Your task to perform on an android device: toggle pop-ups in chrome Image 0: 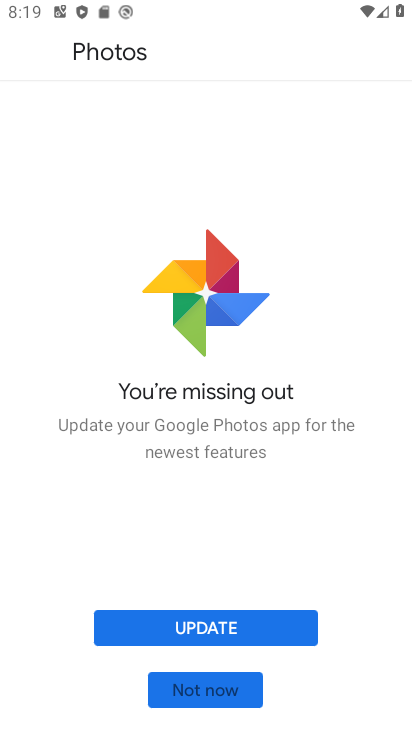
Step 0: press home button
Your task to perform on an android device: toggle pop-ups in chrome Image 1: 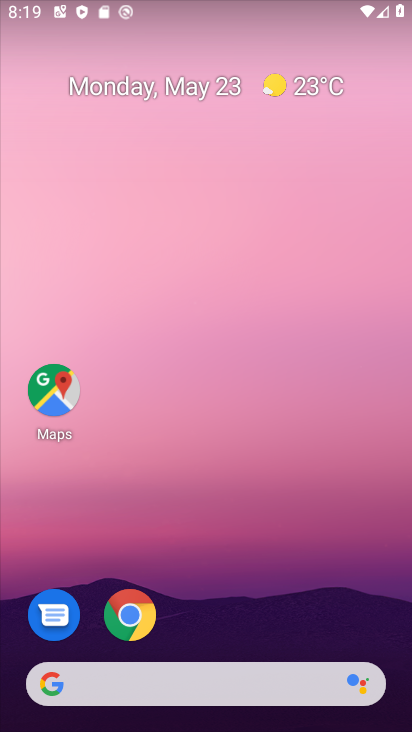
Step 1: click (130, 616)
Your task to perform on an android device: toggle pop-ups in chrome Image 2: 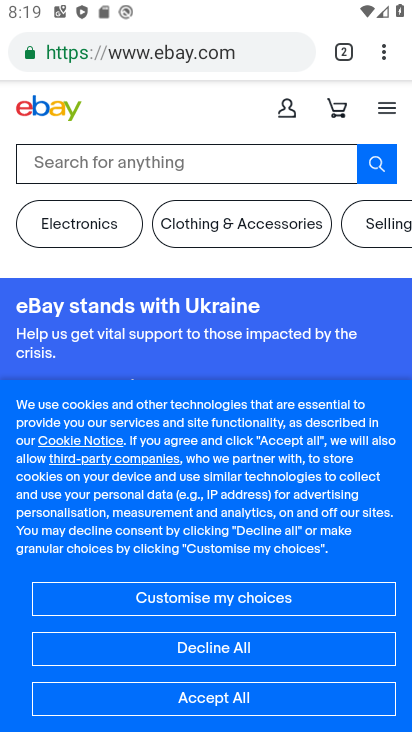
Step 2: click (385, 50)
Your task to perform on an android device: toggle pop-ups in chrome Image 3: 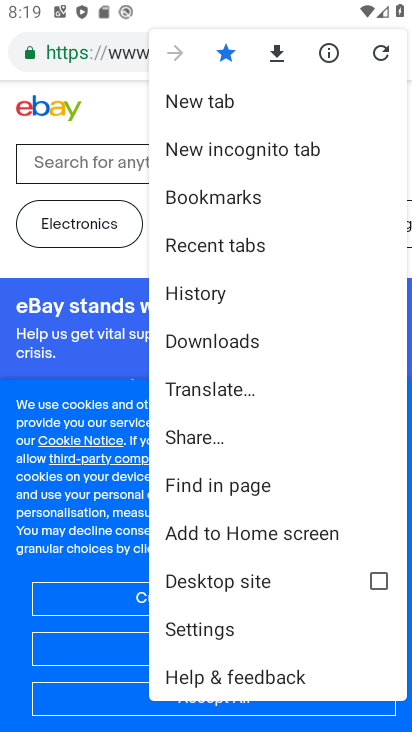
Step 3: click (222, 632)
Your task to perform on an android device: toggle pop-ups in chrome Image 4: 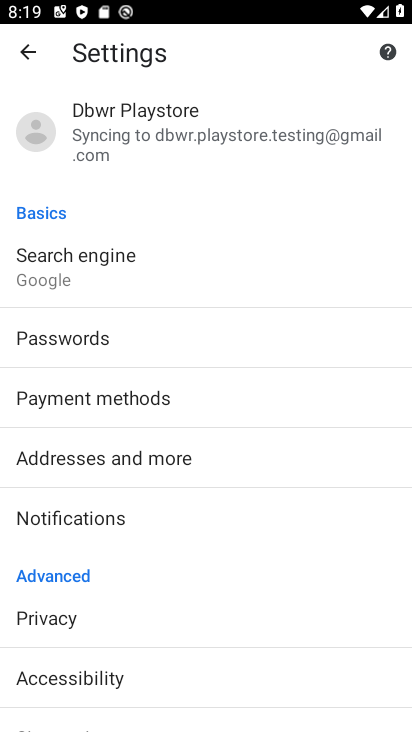
Step 4: drag from (140, 540) to (151, 445)
Your task to perform on an android device: toggle pop-ups in chrome Image 5: 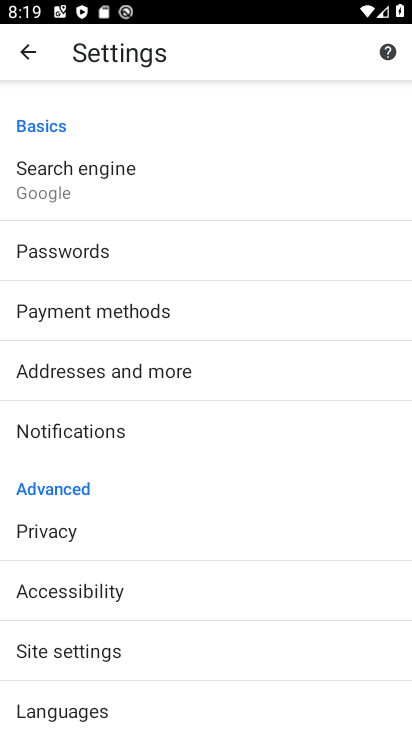
Step 5: drag from (136, 512) to (145, 419)
Your task to perform on an android device: toggle pop-ups in chrome Image 6: 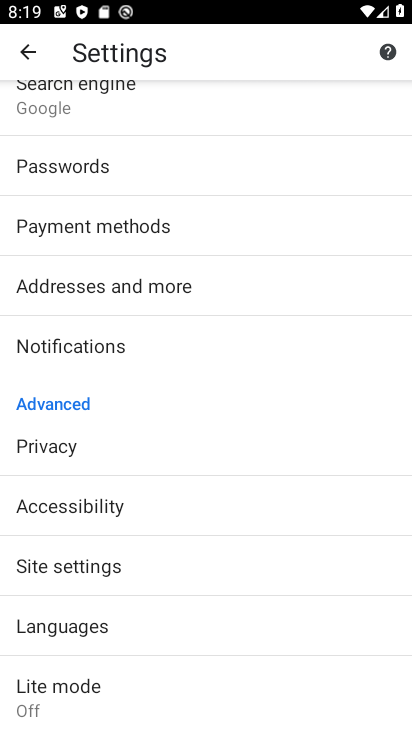
Step 6: drag from (151, 527) to (149, 449)
Your task to perform on an android device: toggle pop-ups in chrome Image 7: 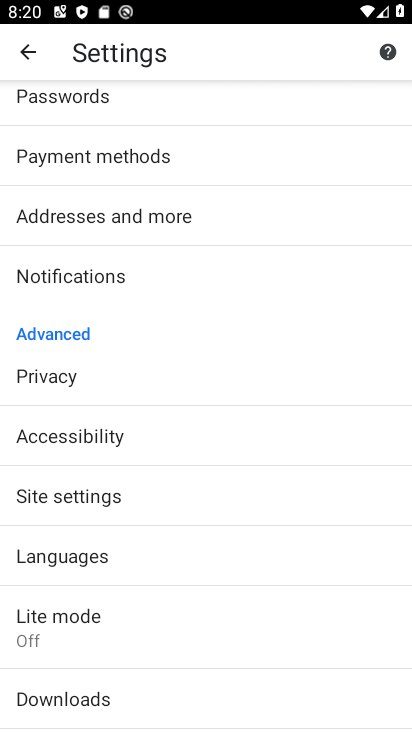
Step 7: drag from (126, 522) to (135, 447)
Your task to perform on an android device: toggle pop-ups in chrome Image 8: 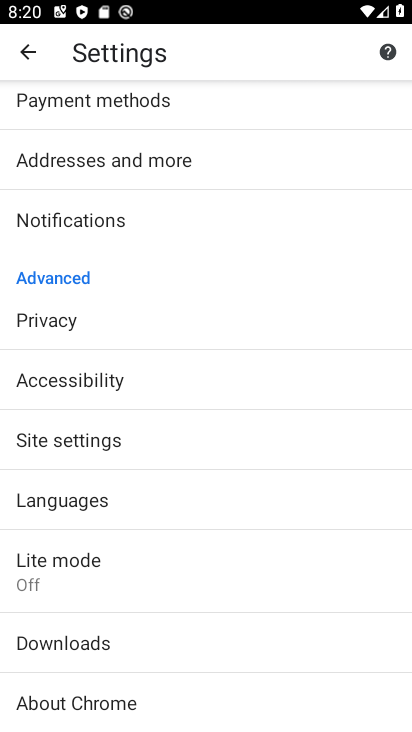
Step 8: click (110, 446)
Your task to perform on an android device: toggle pop-ups in chrome Image 9: 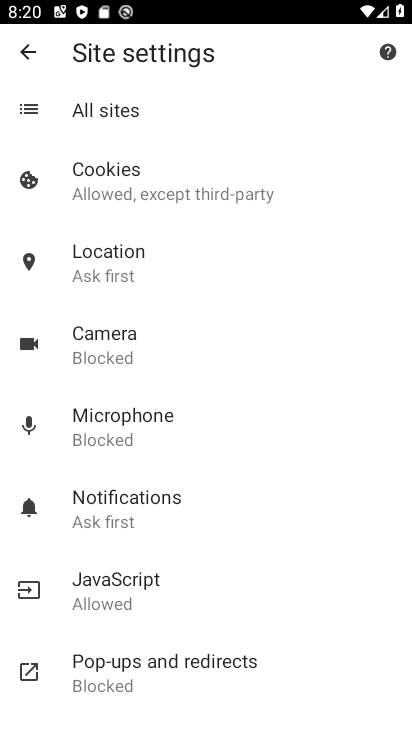
Step 9: click (109, 661)
Your task to perform on an android device: toggle pop-ups in chrome Image 10: 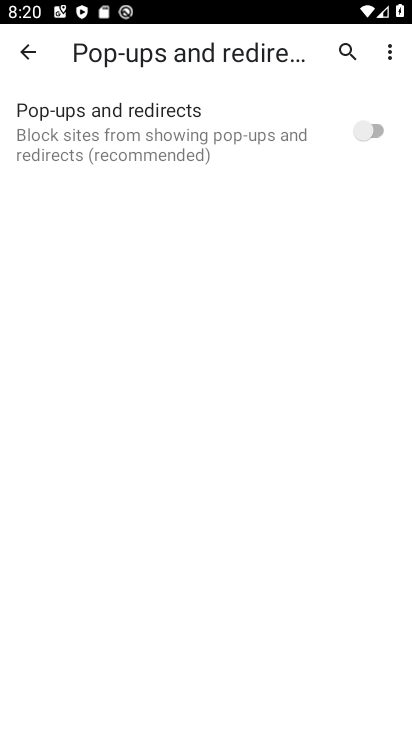
Step 10: click (369, 129)
Your task to perform on an android device: toggle pop-ups in chrome Image 11: 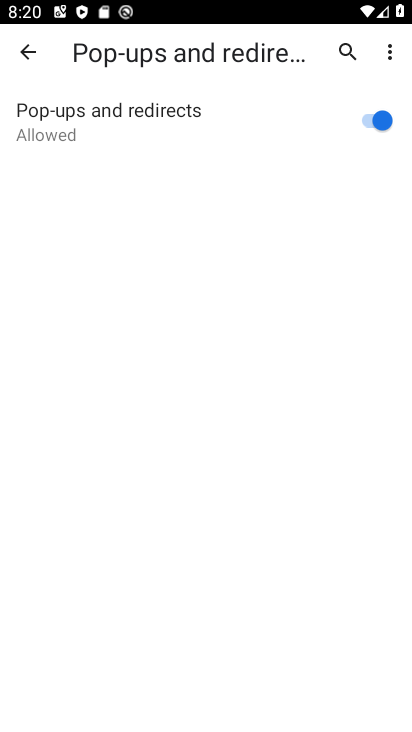
Step 11: task complete